Your task to perform on an android device: Open network settings Image 0: 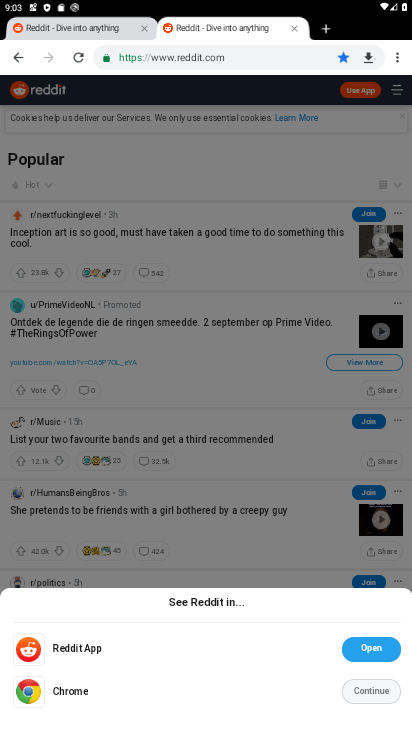
Step 0: press home button
Your task to perform on an android device: Open network settings Image 1: 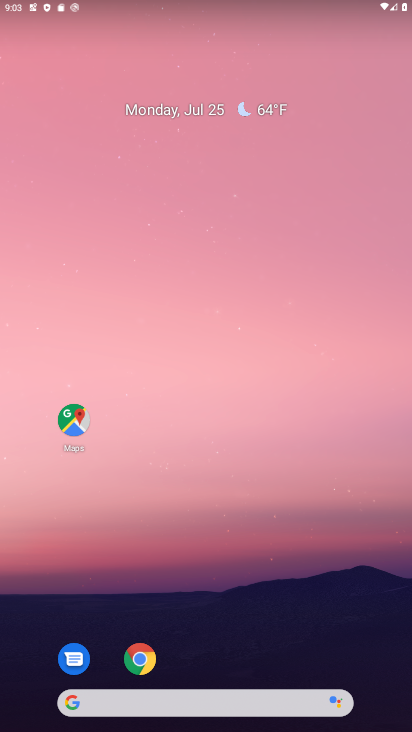
Step 1: drag from (336, 646) to (385, 94)
Your task to perform on an android device: Open network settings Image 2: 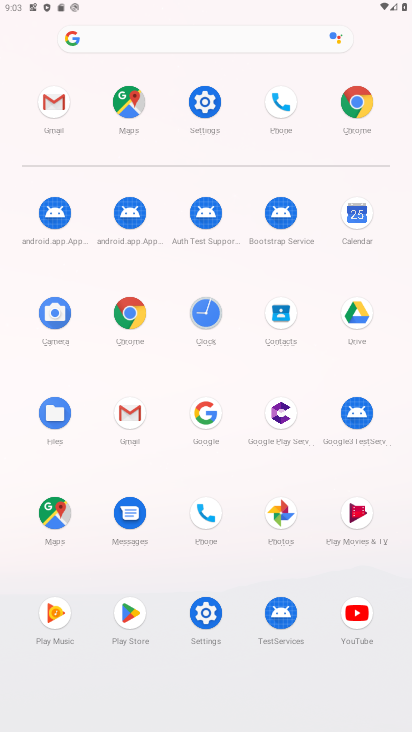
Step 2: click (206, 102)
Your task to perform on an android device: Open network settings Image 3: 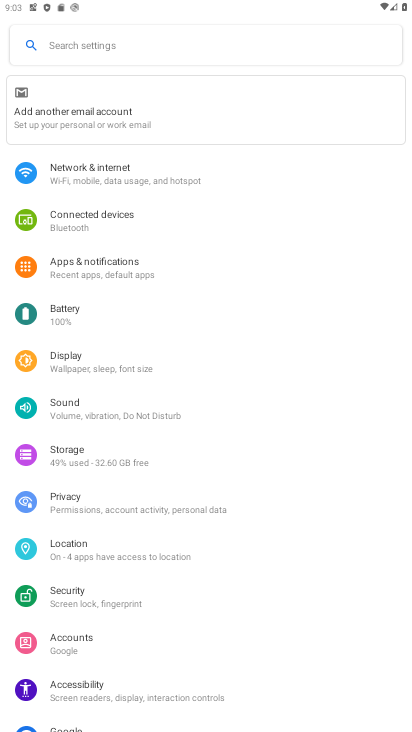
Step 3: drag from (336, 411) to (339, 337)
Your task to perform on an android device: Open network settings Image 4: 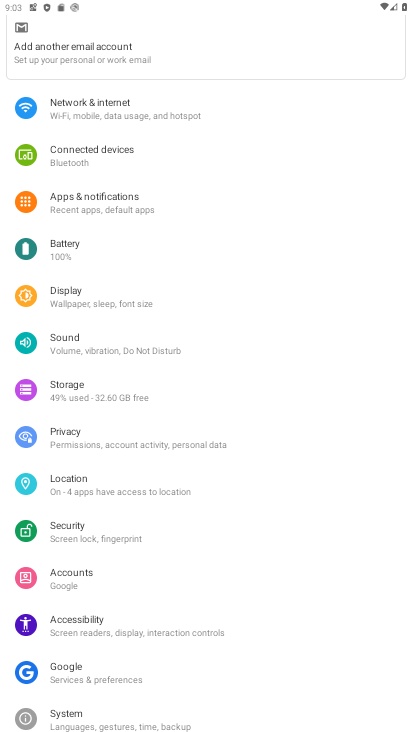
Step 4: drag from (335, 421) to (338, 320)
Your task to perform on an android device: Open network settings Image 5: 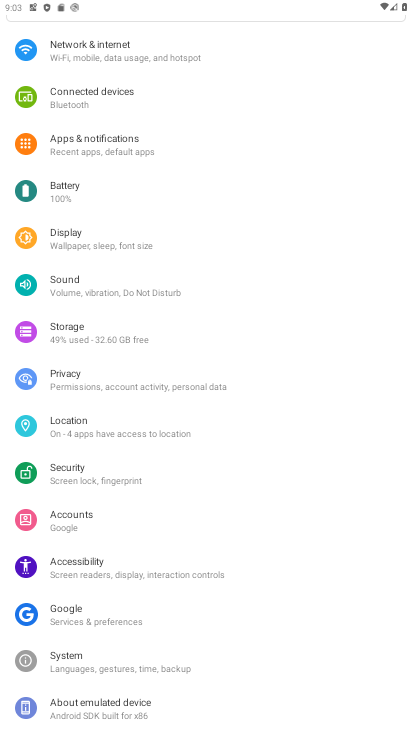
Step 5: drag from (343, 428) to (341, 326)
Your task to perform on an android device: Open network settings Image 6: 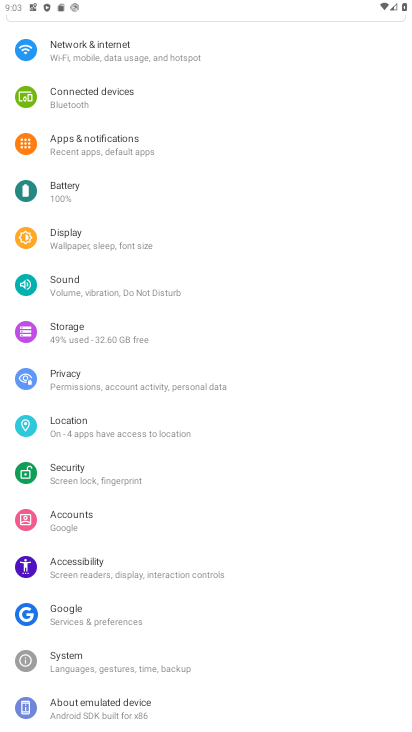
Step 6: drag from (341, 311) to (342, 406)
Your task to perform on an android device: Open network settings Image 7: 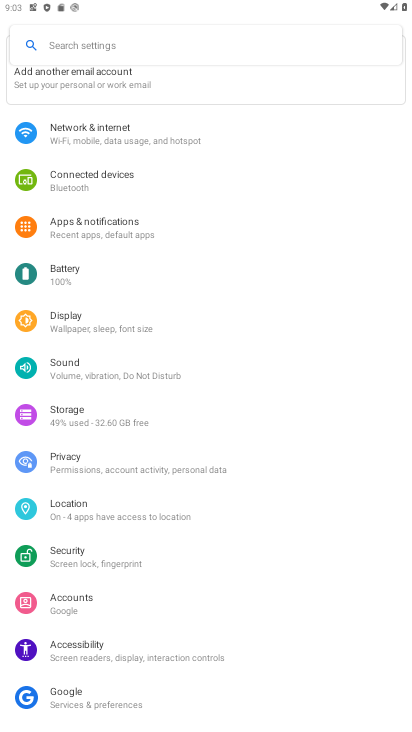
Step 7: drag from (332, 286) to (343, 407)
Your task to perform on an android device: Open network settings Image 8: 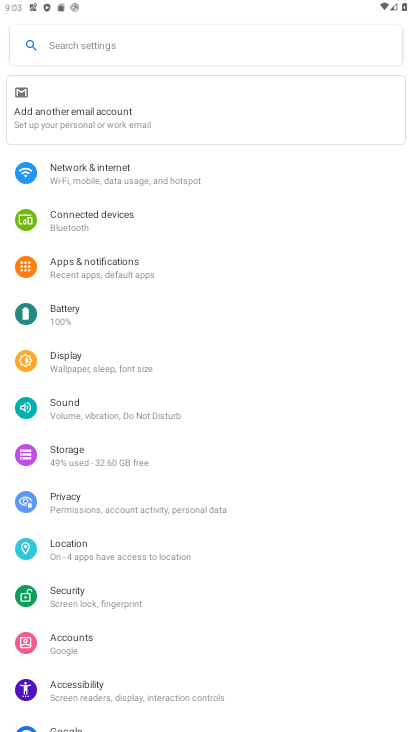
Step 8: click (177, 177)
Your task to perform on an android device: Open network settings Image 9: 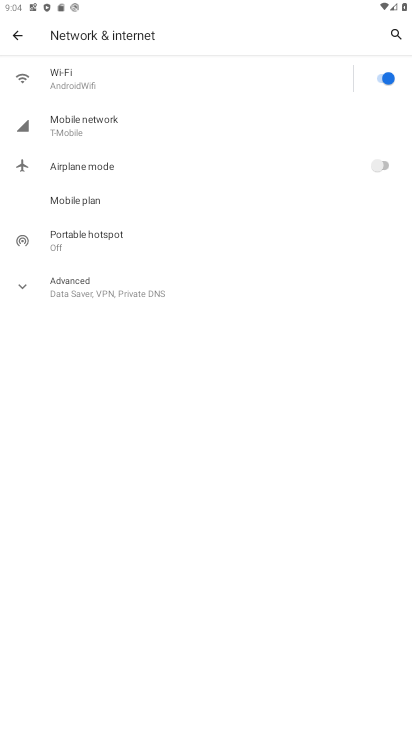
Step 9: task complete